Your task to perform on an android device: delete location history Image 0: 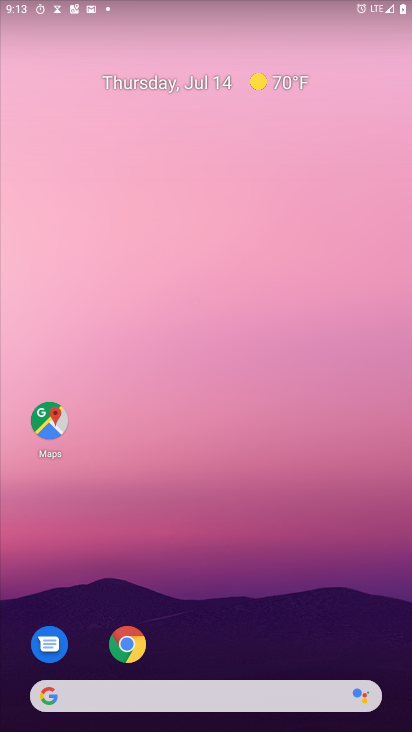
Step 0: click (51, 415)
Your task to perform on an android device: delete location history Image 1: 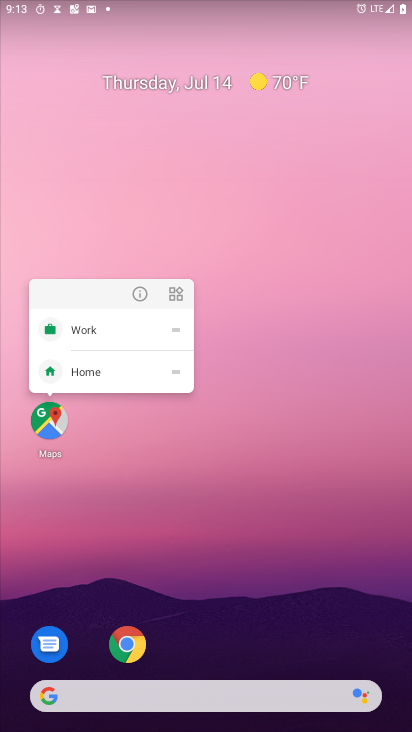
Step 1: click (51, 416)
Your task to perform on an android device: delete location history Image 2: 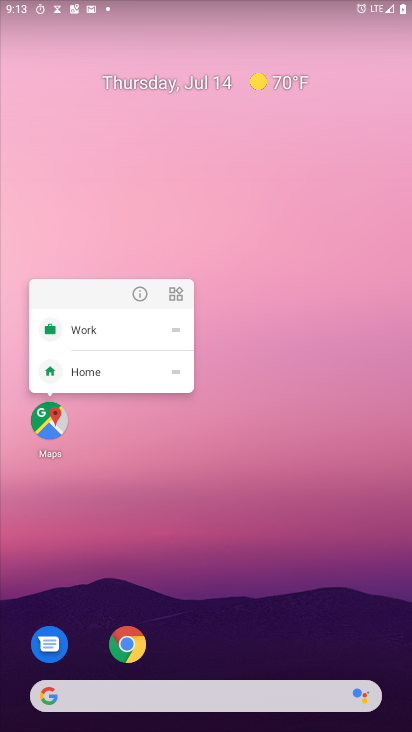
Step 2: click (44, 429)
Your task to perform on an android device: delete location history Image 3: 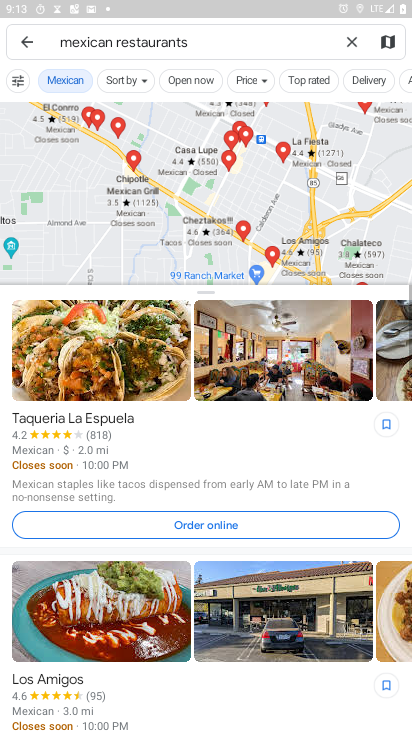
Step 3: click (30, 45)
Your task to perform on an android device: delete location history Image 4: 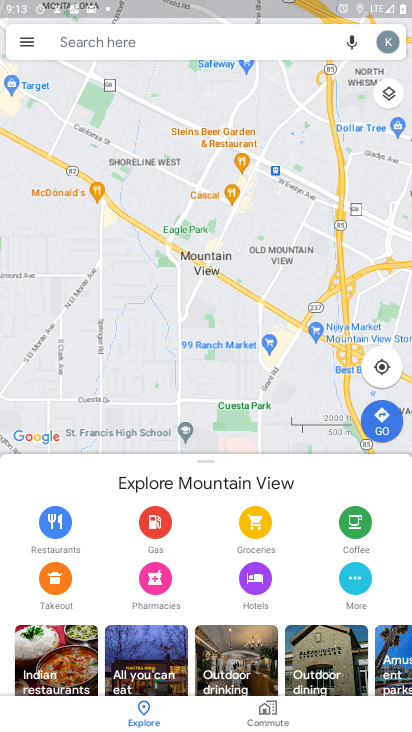
Step 4: click (30, 44)
Your task to perform on an android device: delete location history Image 5: 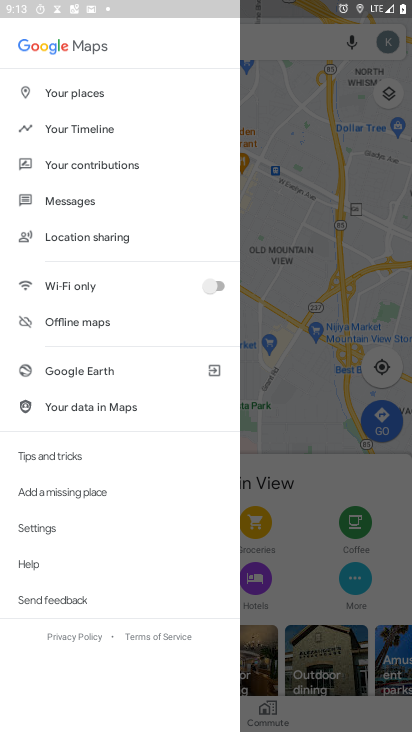
Step 5: click (104, 129)
Your task to perform on an android device: delete location history Image 6: 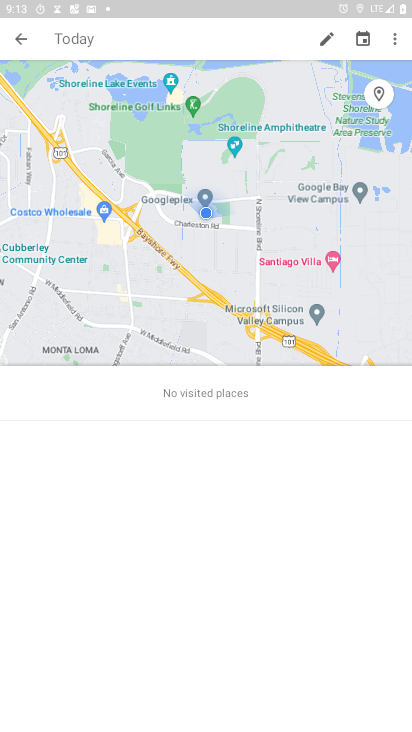
Step 6: click (398, 39)
Your task to perform on an android device: delete location history Image 7: 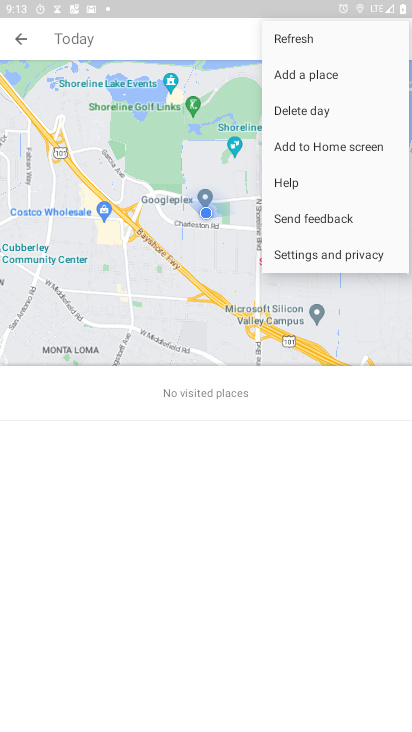
Step 7: click (332, 248)
Your task to perform on an android device: delete location history Image 8: 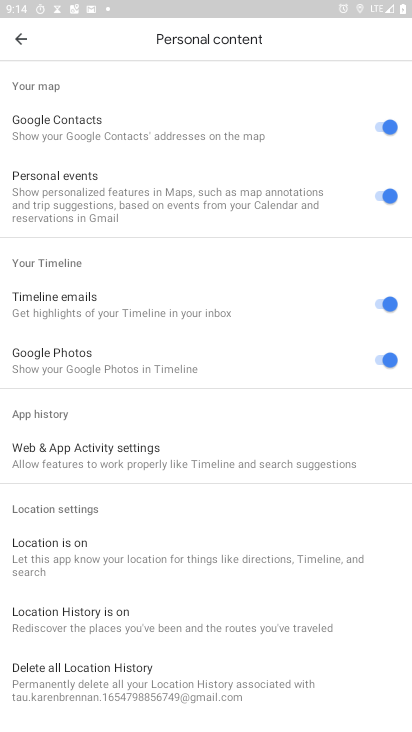
Step 8: drag from (181, 580) to (275, 270)
Your task to perform on an android device: delete location history Image 9: 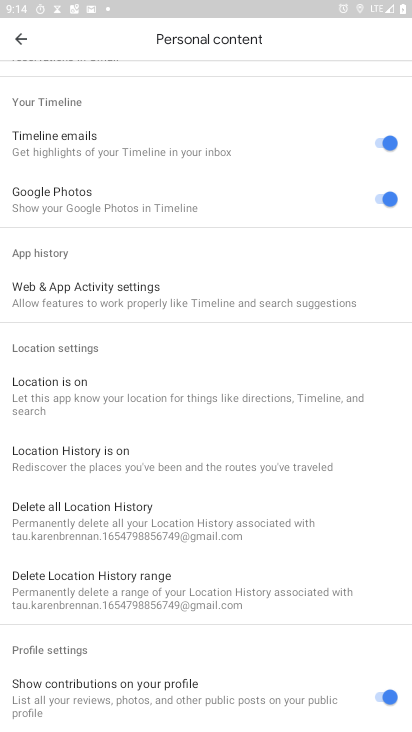
Step 9: click (115, 512)
Your task to perform on an android device: delete location history Image 10: 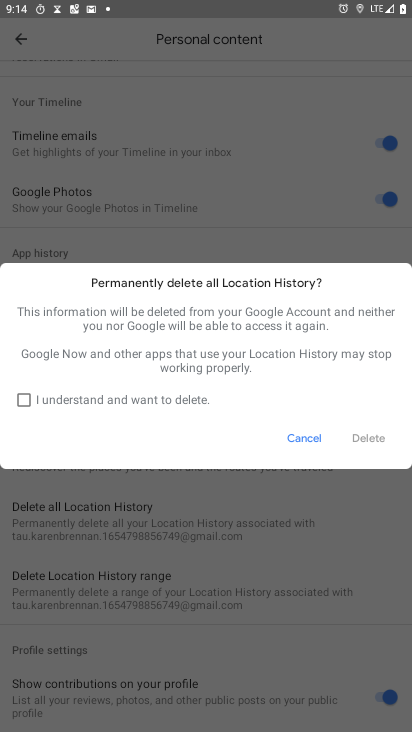
Step 10: click (22, 400)
Your task to perform on an android device: delete location history Image 11: 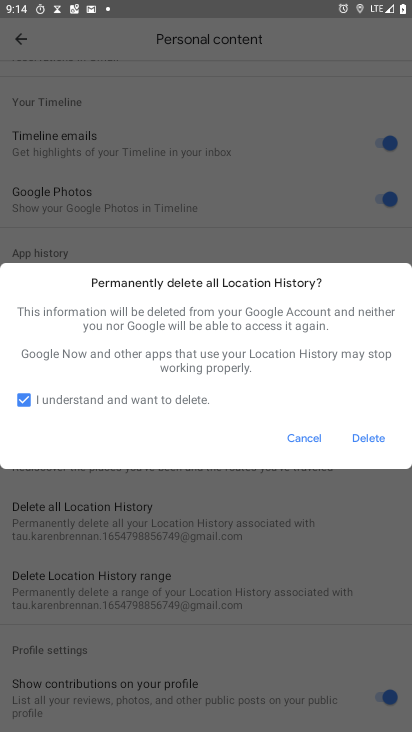
Step 11: click (375, 441)
Your task to perform on an android device: delete location history Image 12: 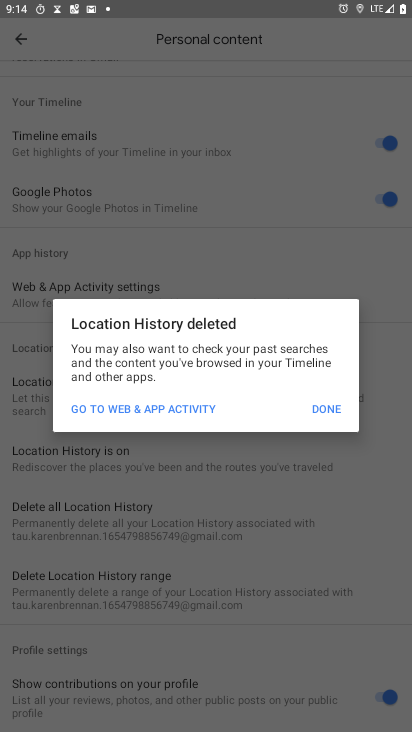
Step 12: click (326, 404)
Your task to perform on an android device: delete location history Image 13: 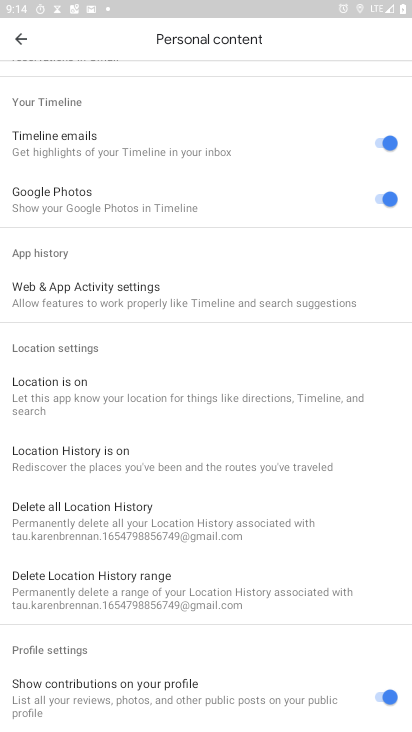
Step 13: task complete